Your task to perform on an android device: turn off picture-in-picture Image 0: 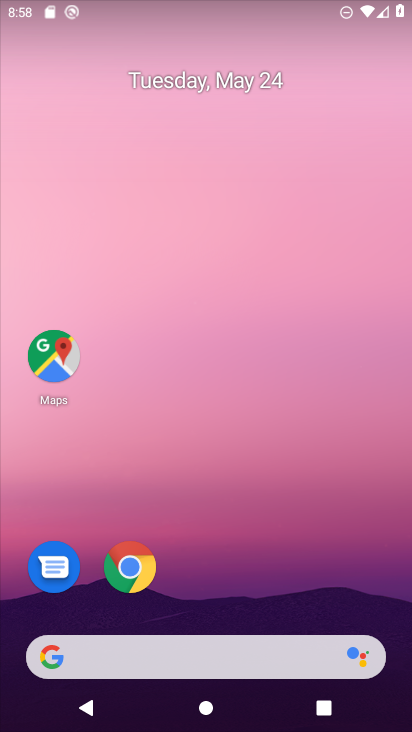
Step 0: press home button
Your task to perform on an android device: turn off picture-in-picture Image 1: 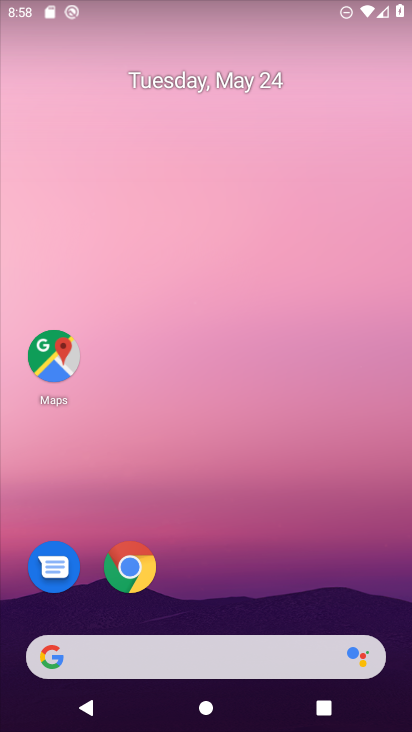
Step 1: click (138, 560)
Your task to perform on an android device: turn off picture-in-picture Image 2: 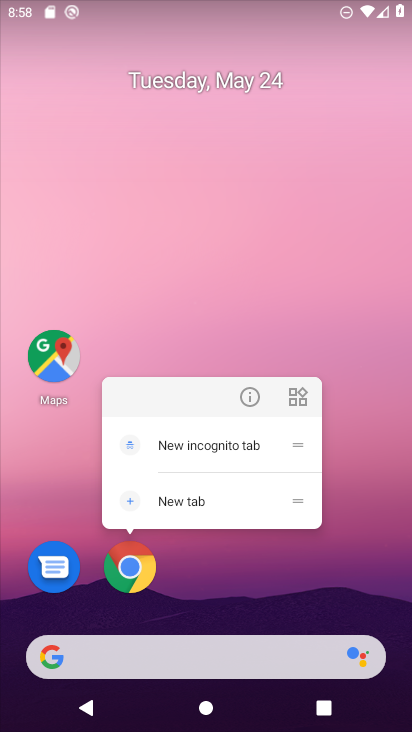
Step 2: click (244, 395)
Your task to perform on an android device: turn off picture-in-picture Image 3: 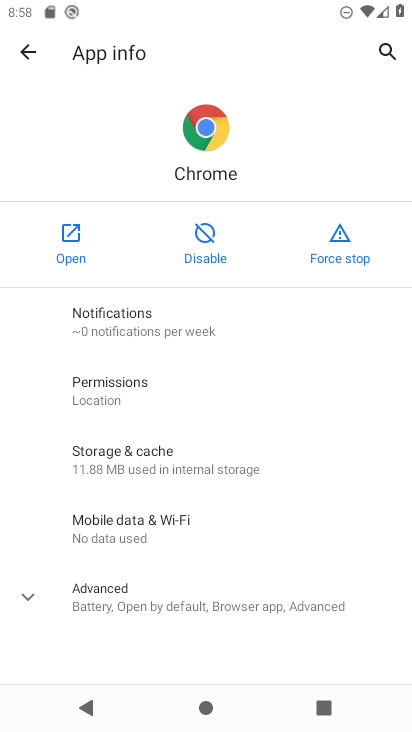
Step 3: drag from (152, 633) to (284, 148)
Your task to perform on an android device: turn off picture-in-picture Image 4: 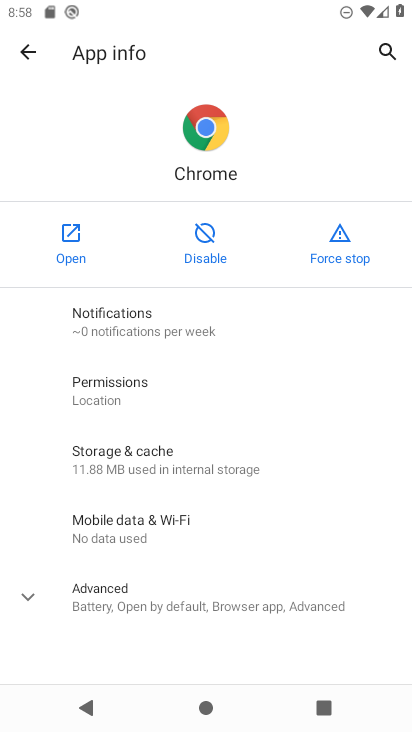
Step 4: click (112, 603)
Your task to perform on an android device: turn off picture-in-picture Image 5: 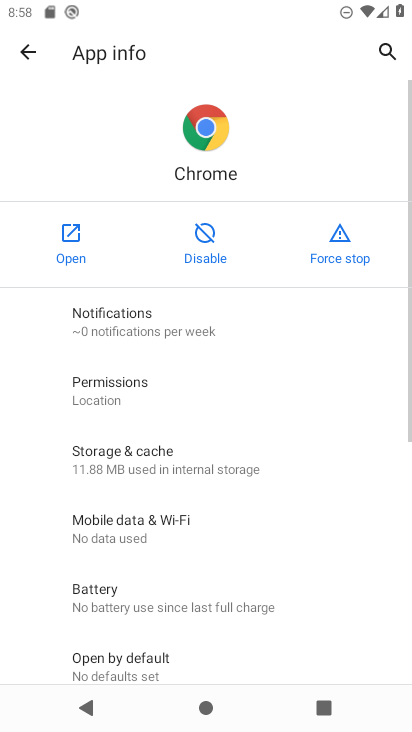
Step 5: drag from (160, 570) to (322, 89)
Your task to perform on an android device: turn off picture-in-picture Image 6: 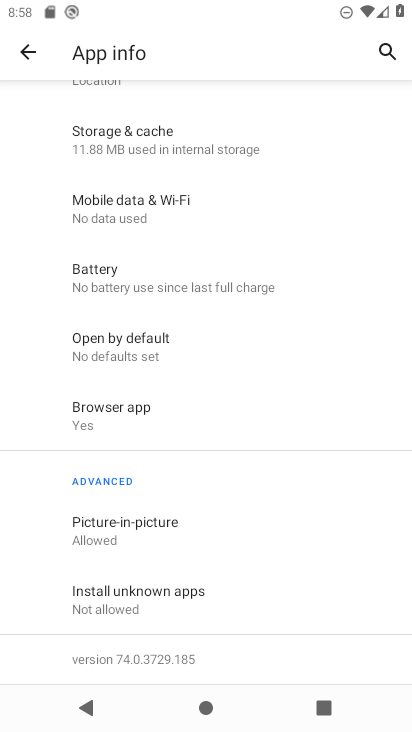
Step 6: drag from (175, 624) to (307, 223)
Your task to perform on an android device: turn off picture-in-picture Image 7: 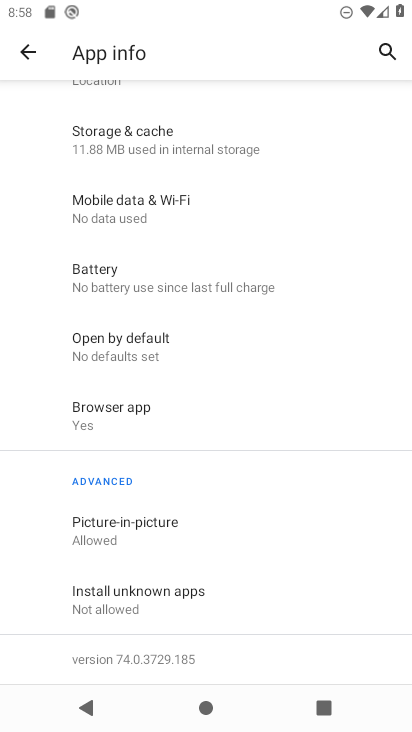
Step 7: click (135, 527)
Your task to perform on an android device: turn off picture-in-picture Image 8: 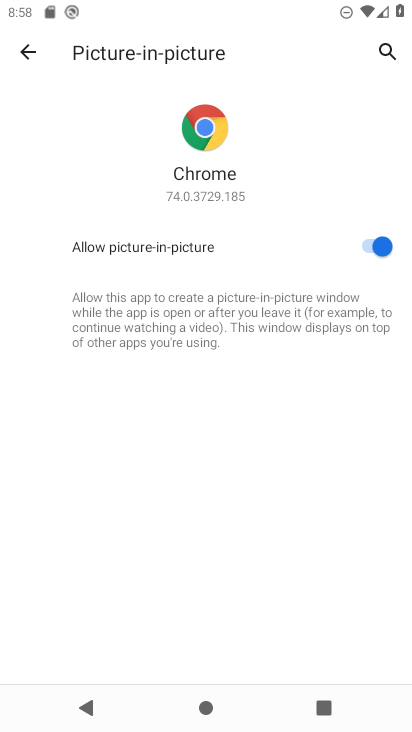
Step 8: click (364, 241)
Your task to perform on an android device: turn off picture-in-picture Image 9: 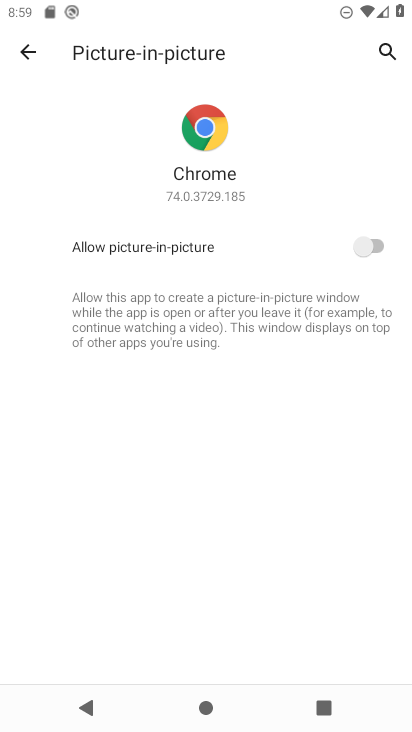
Step 9: task complete